Your task to perform on an android device: Search for vegetarian restaurants on Maps Image 0: 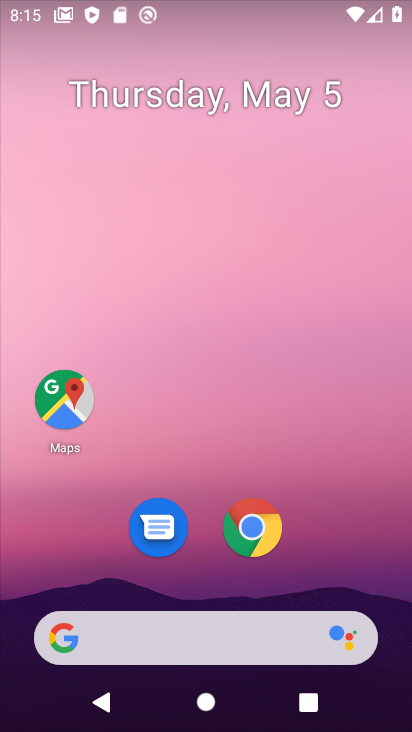
Step 0: click (51, 412)
Your task to perform on an android device: Search for vegetarian restaurants on Maps Image 1: 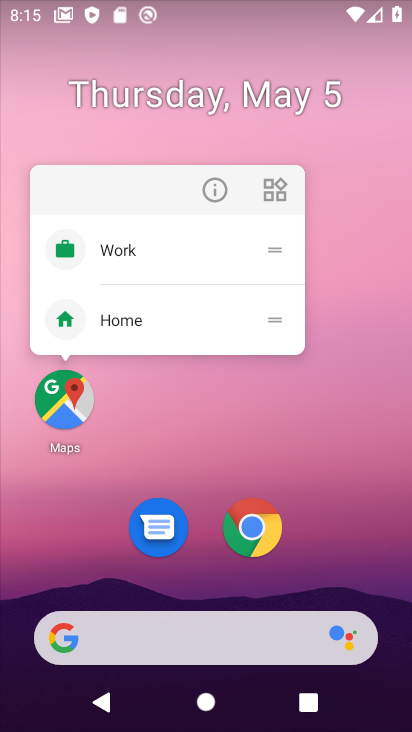
Step 1: click (67, 408)
Your task to perform on an android device: Search for vegetarian restaurants on Maps Image 2: 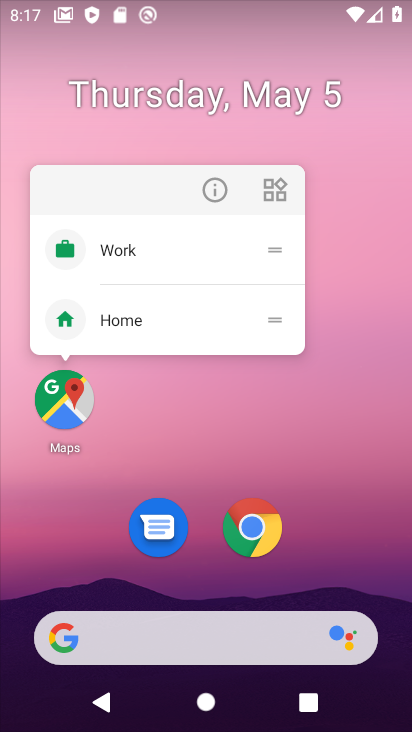
Step 2: click (70, 409)
Your task to perform on an android device: Search for vegetarian restaurants on Maps Image 3: 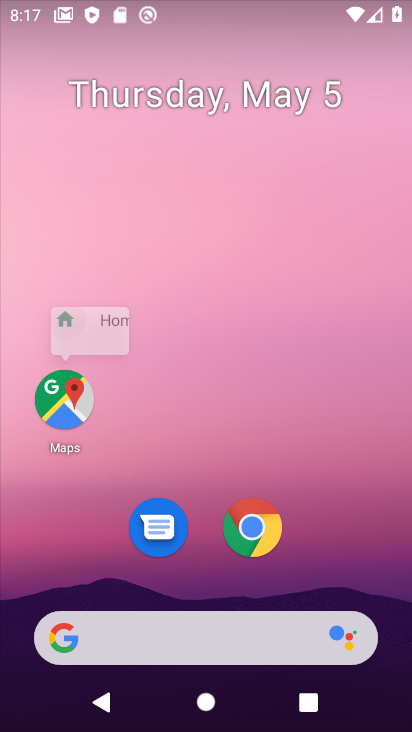
Step 3: click (70, 409)
Your task to perform on an android device: Search for vegetarian restaurants on Maps Image 4: 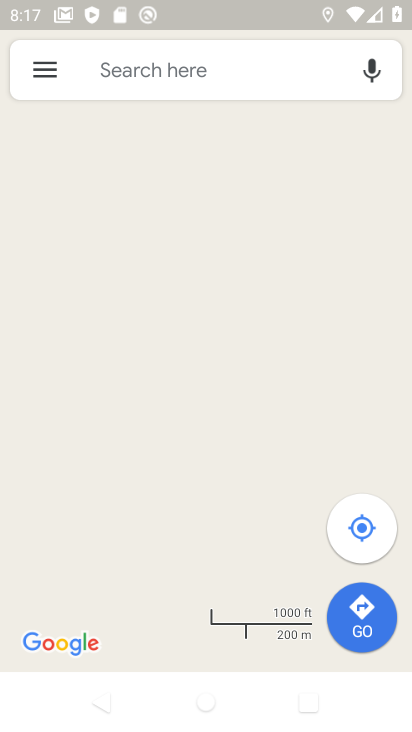
Step 4: click (220, 78)
Your task to perform on an android device: Search for vegetarian restaurants on Maps Image 5: 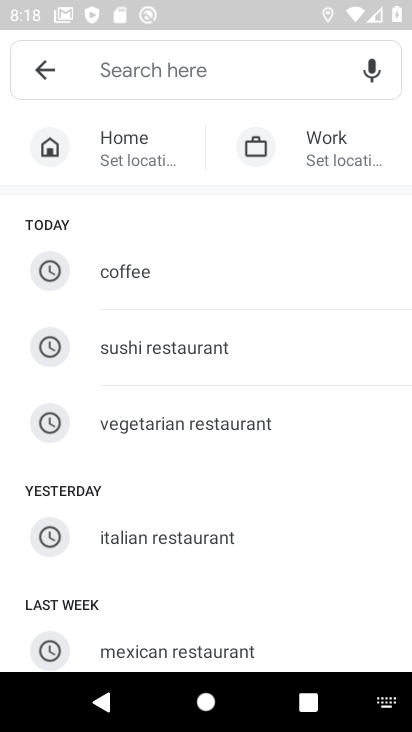
Step 5: click (204, 428)
Your task to perform on an android device: Search for vegetarian restaurants on Maps Image 6: 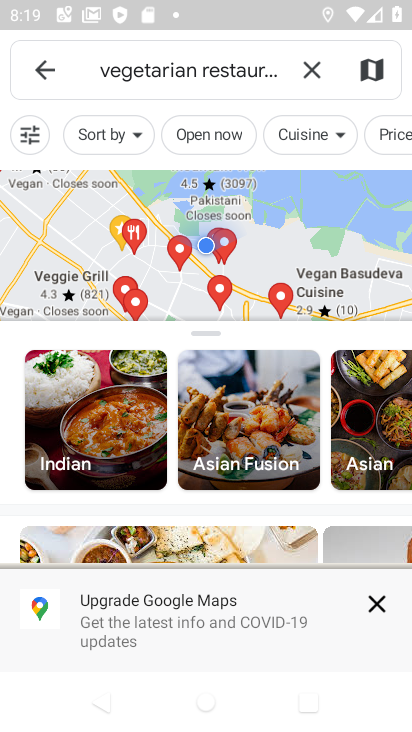
Step 6: task complete